Your task to perform on an android device: change the upload size in google photos Image 0: 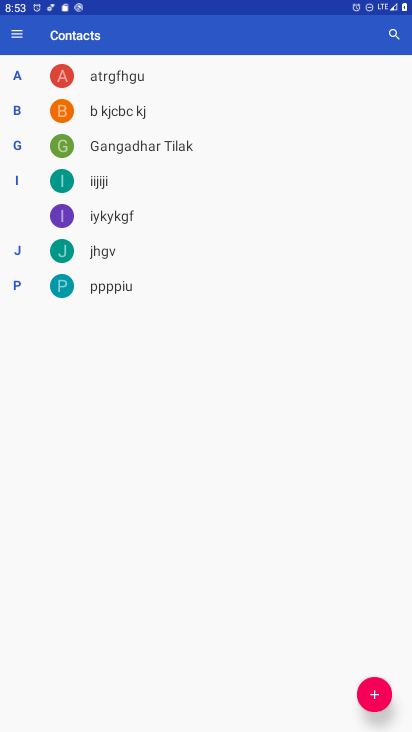
Step 0: press home button
Your task to perform on an android device: change the upload size in google photos Image 1: 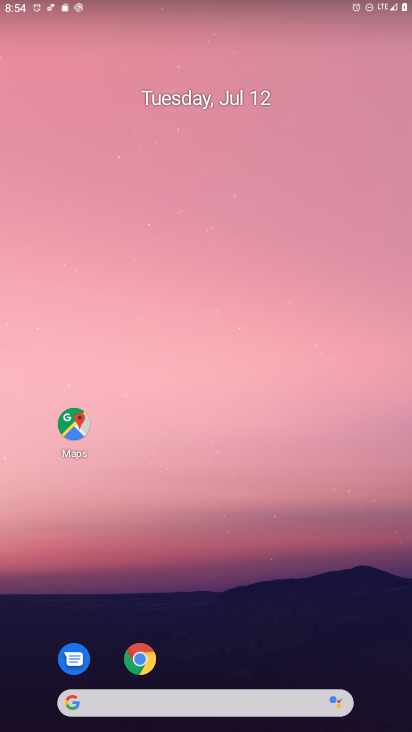
Step 1: drag from (193, 692) to (99, 164)
Your task to perform on an android device: change the upload size in google photos Image 2: 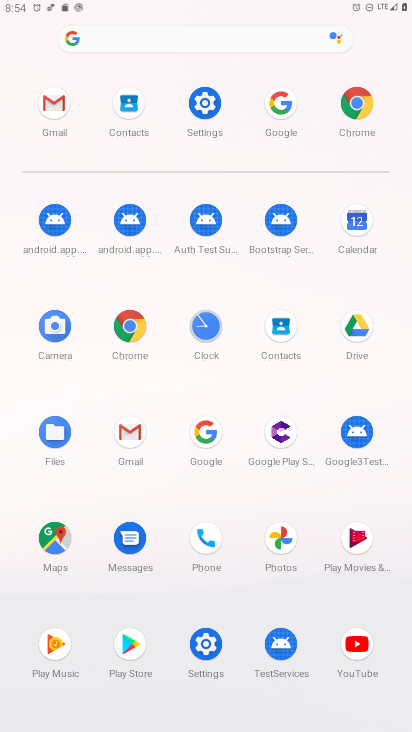
Step 2: click (279, 539)
Your task to perform on an android device: change the upload size in google photos Image 3: 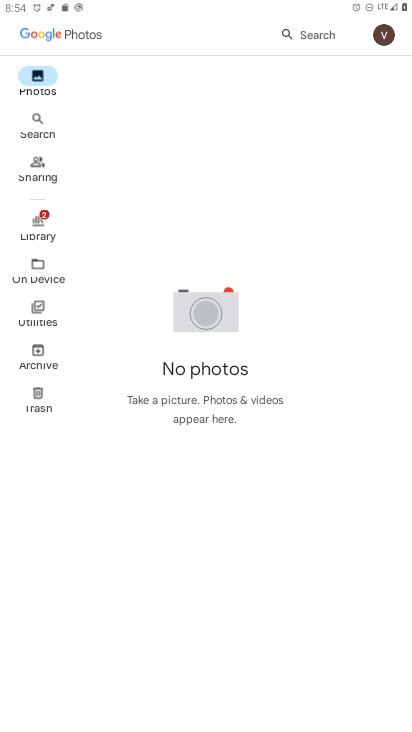
Step 3: click (385, 39)
Your task to perform on an android device: change the upload size in google photos Image 4: 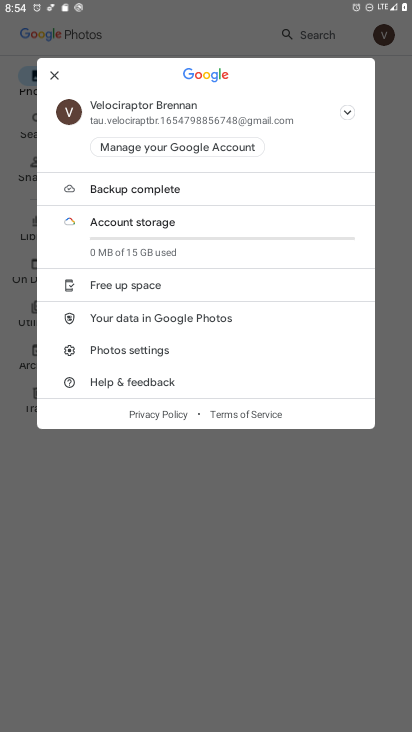
Step 4: click (165, 346)
Your task to perform on an android device: change the upload size in google photos Image 5: 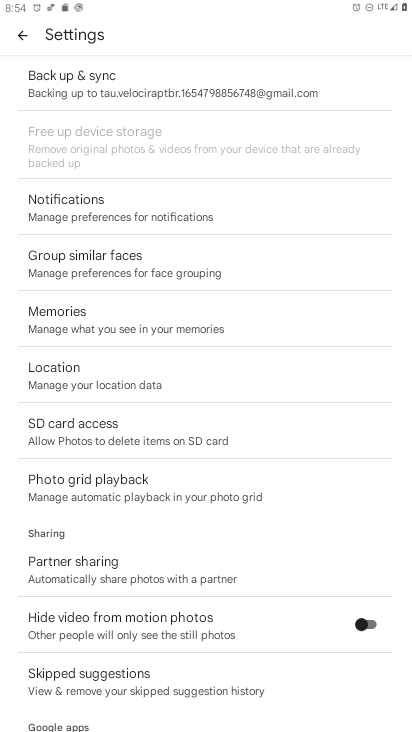
Step 5: click (176, 96)
Your task to perform on an android device: change the upload size in google photos Image 6: 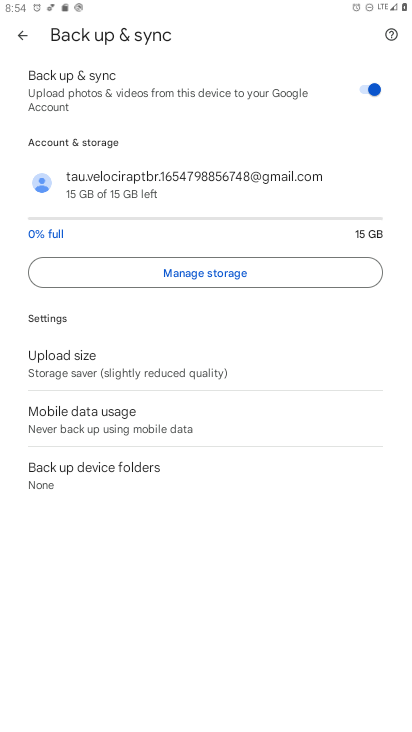
Step 6: click (134, 364)
Your task to perform on an android device: change the upload size in google photos Image 7: 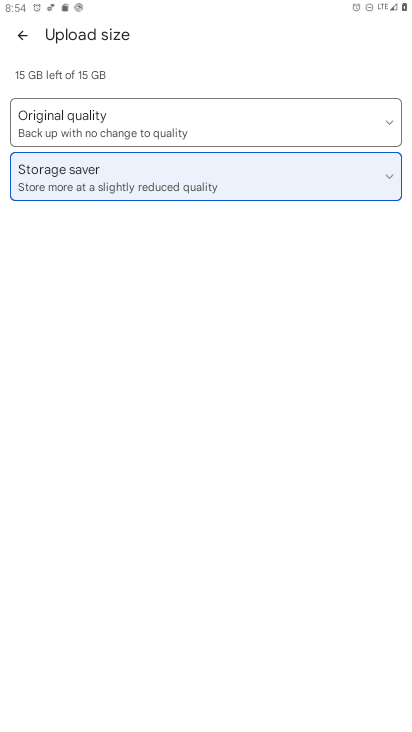
Step 7: click (81, 112)
Your task to perform on an android device: change the upload size in google photos Image 8: 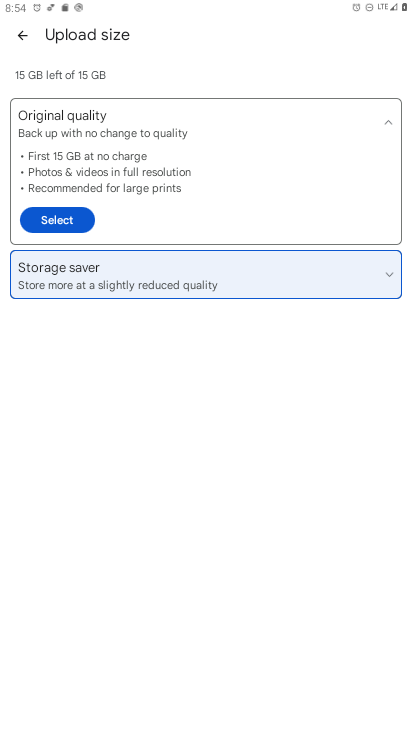
Step 8: click (62, 214)
Your task to perform on an android device: change the upload size in google photos Image 9: 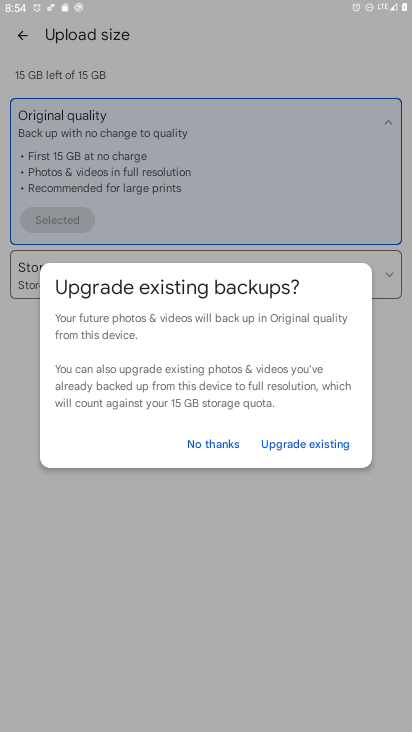
Step 9: click (212, 446)
Your task to perform on an android device: change the upload size in google photos Image 10: 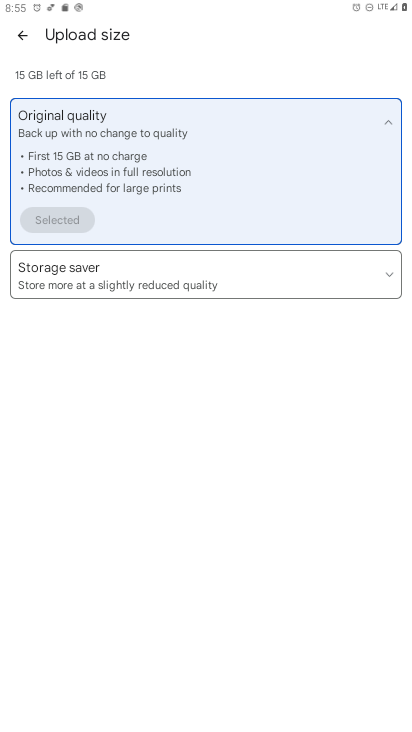
Step 10: task complete